Your task to perform on an android device: Search for hotels in Mexico city Image 0: 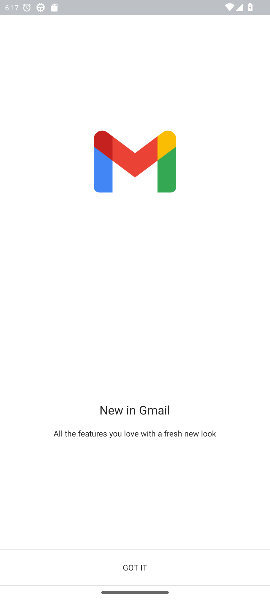
Step 0: press home button
Your task to perform on an android device: Search for hotels in Mexico city Image 1: 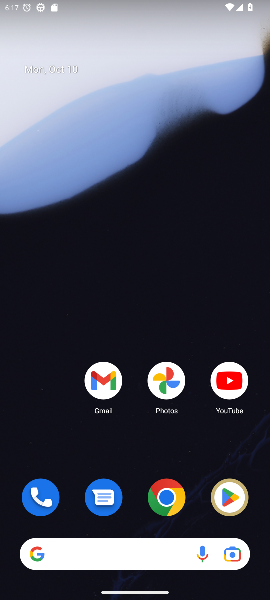
Step 1: drag from (128, 460) to (153, 247)
Your task to perform on an android device: Search for hotels in Mexico city Image 2: 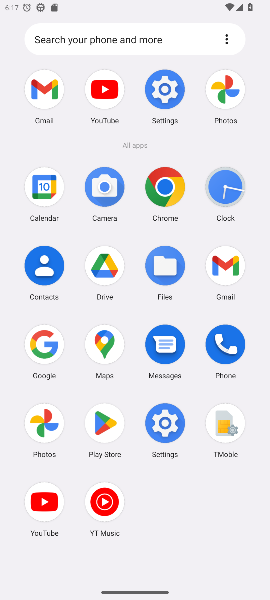
Step 2: click (44, 343)
Your task to perform on an android device: Search for hotels in Mexico city Image 3: 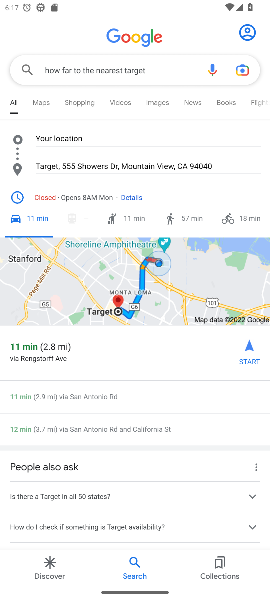
Step 3: click (152, 61)
Your task to perform on an android device: Search for hotels in Mexico city Image 4: 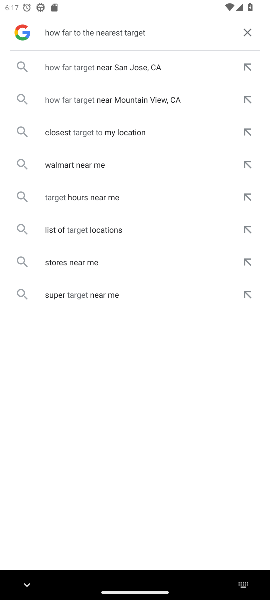
Step 4: click (250, 28)
Your task to perform on an android device: Search for hotels in Mexico city Image 5: 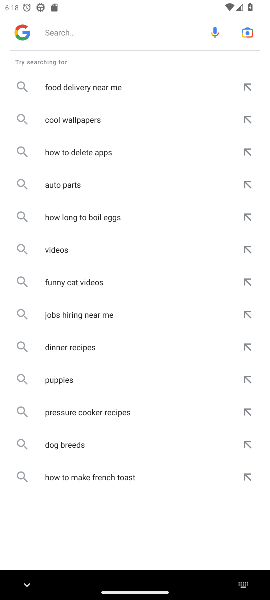
Step 5: click (82, 32)
Your task to perform on an android device: Search for hotels in Mexico city Image 6: 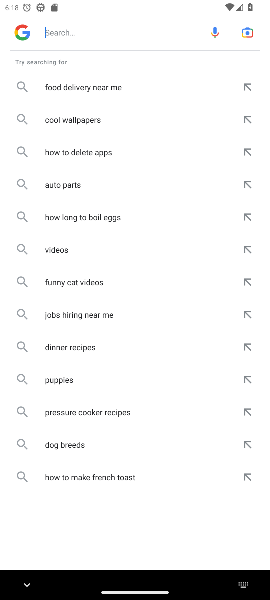
Step 6: type "Search for hotels in Mexico city "
Your task to perform on an android device: Search for hotels in Mexico city Image 7: 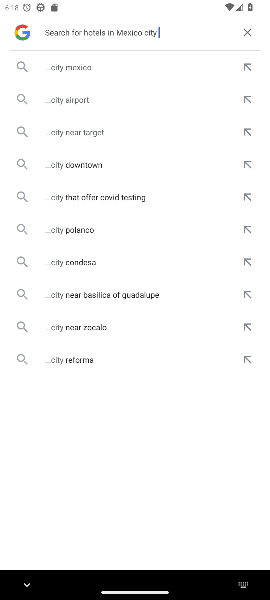
Step 7: click (105, 68)
Your task to perform on an android device: Search for hotels in Mexico city Image 8: 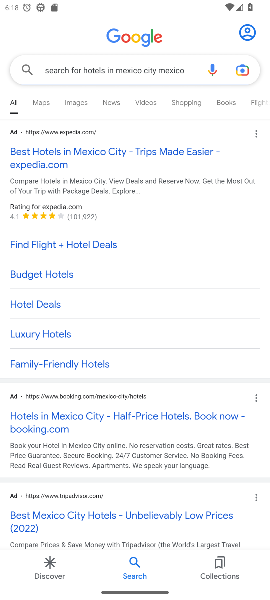
Step 8: click (92, 150)
Your task to perform on an android device: Search for hotels in Mexico city Image 9: 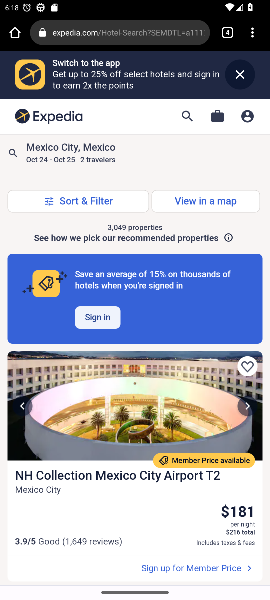
Step 9: click (96, 526)
Your task to perform on an android device: Search for hotels in Mexico city Image 10: 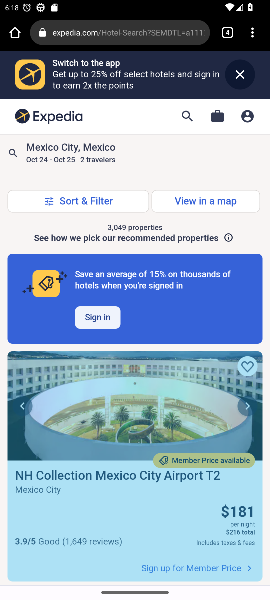
Step 10: task complete